Your task to perform on an android device: toggle location history Image 0: 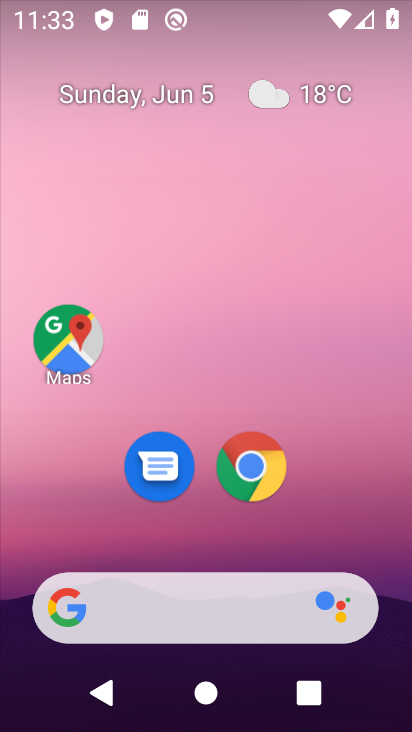
Step 0: drag from (348, 506) to (246, 0)
Your task to perform on an android device: toggle location history Image 1: 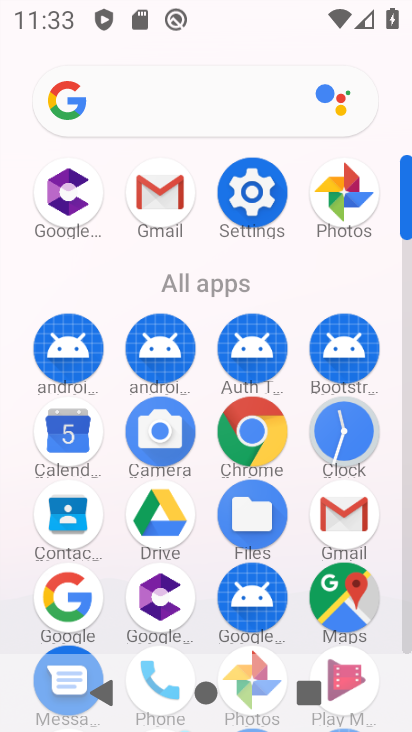
Step 1: click (254, 190)
Your task to perform on an android device: toggle location history Image 2: 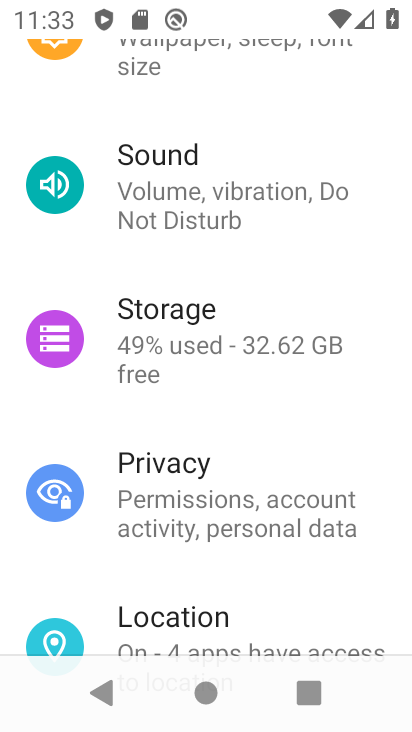
Step 2: drag from (259, 583) to (270, 261)
Your task to perform on an android device: toggle location history Image 3: 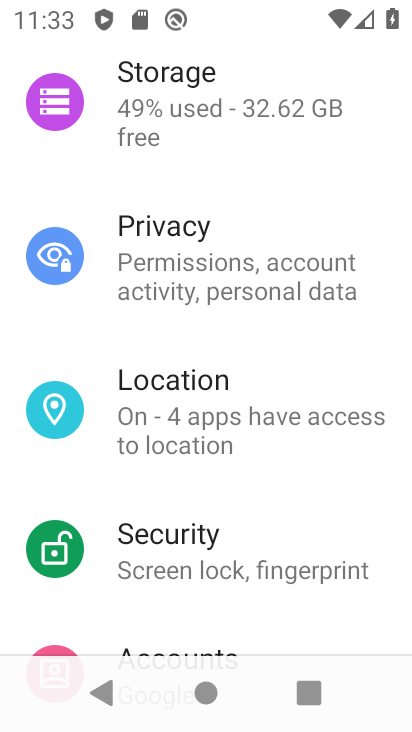
Step 3: click (208, 419)
Your task to perform on an android device: toggle location history Image 4: 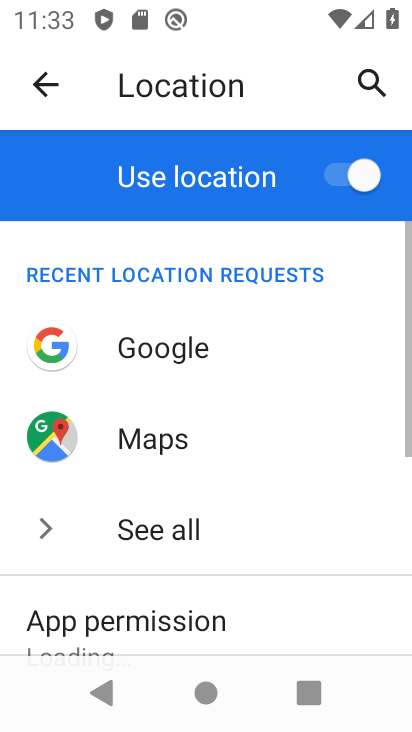
Step 4: drag from (264, 598) to (274, 162)
Your task to perform on an android device: toggle location history Image 5: 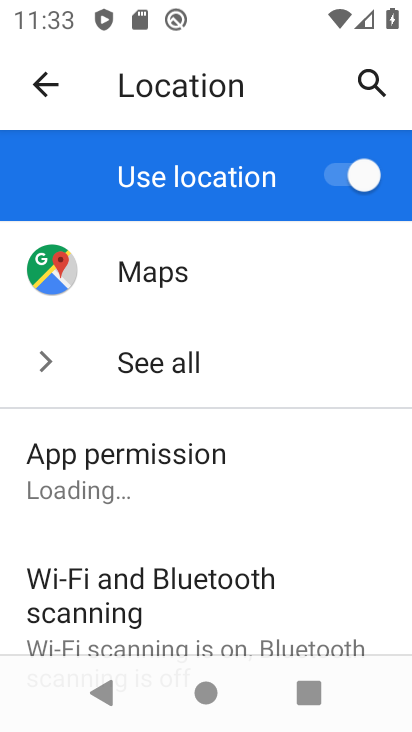
Step 5: drag from (147, 554) to (239, 183)
Your task to perform on an android device: toggle location history Image 6: 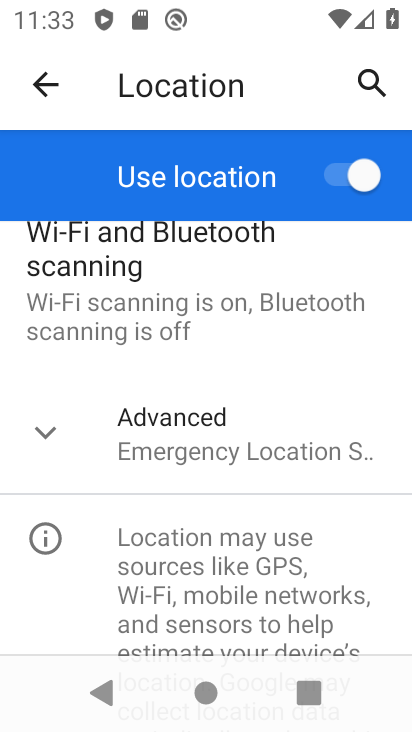
Step 6: click (113, 459)
Your task to perform on an android device: toggle location history Image 7: 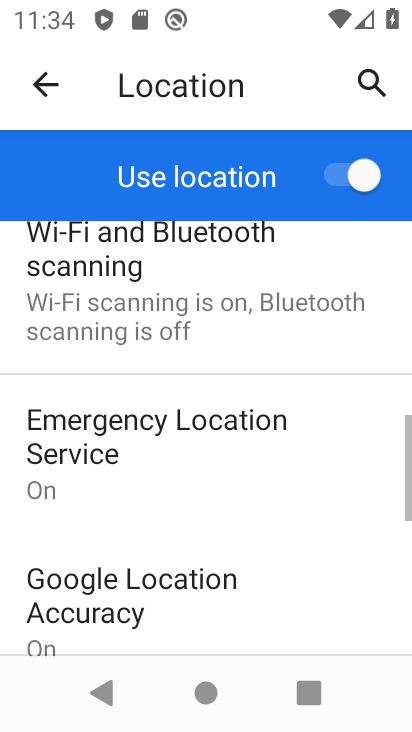
Step 7: drag from (244, 570) to (244, 213)
Your task to perform on an android device: toggle location history Image 8: 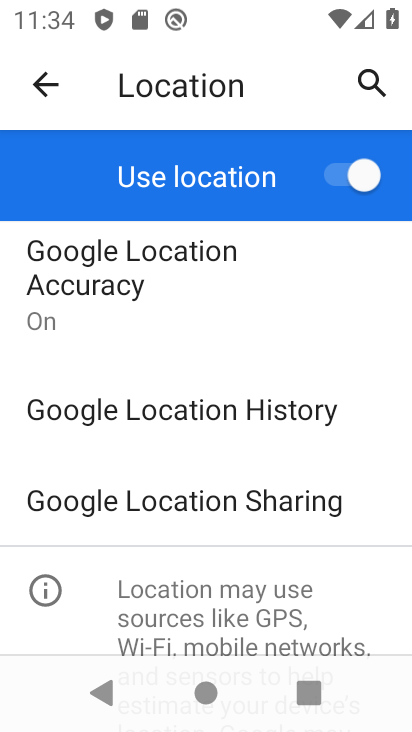
Step 8: click (159, 427)
Your task to perform on an android device: toggle location history Image 9: 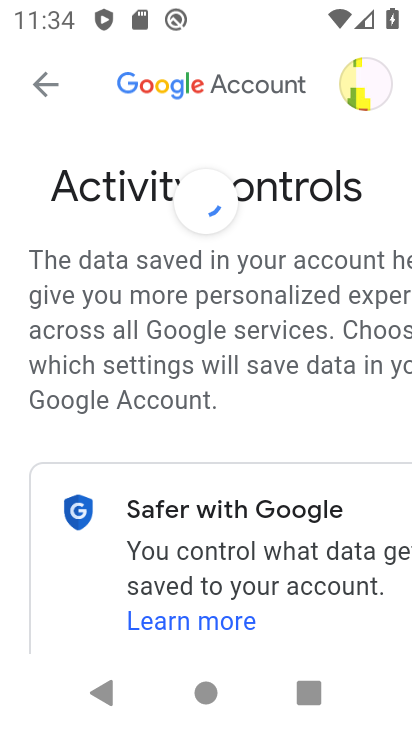
Step 9: drag from (269, 585) to (249, 220)
Your task to perform on an android device: toggle location history Image 10: 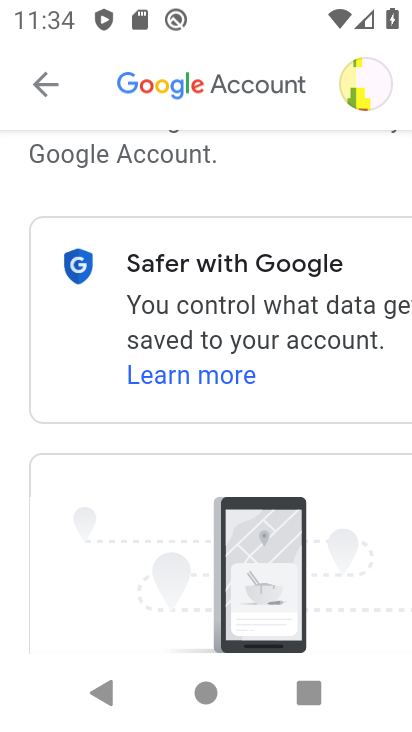
Step 10: drag from (162, 611) to (90, 217)
Your task to perform on an android device: toggle location history Image 11: 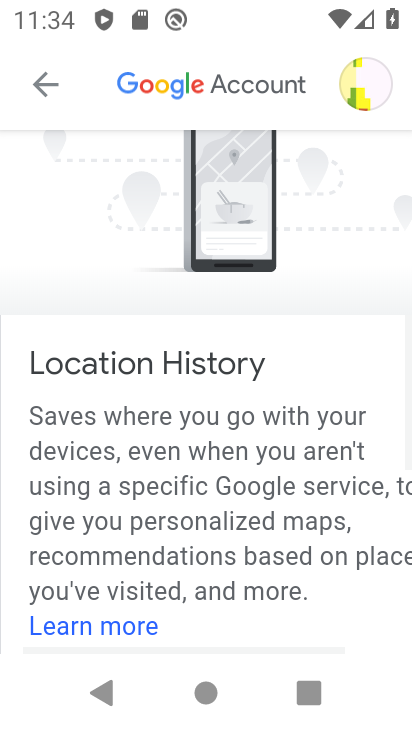
Step 11: drag from (230, 551) to (87, 227)
Your task to perform on an android device: toggle location history Image 12: 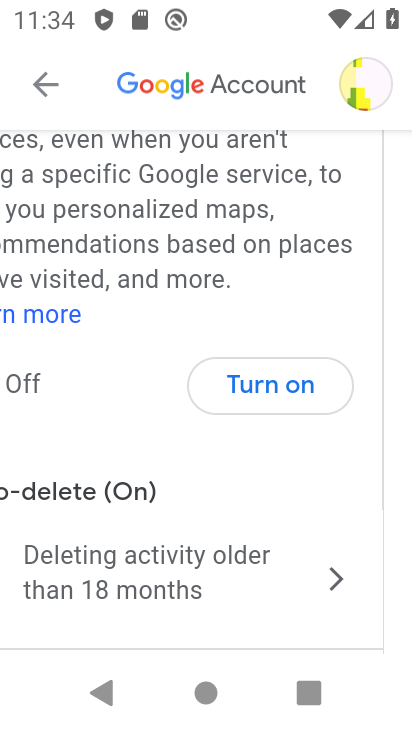
Step 12: drag from (261, 285) to (154, 249)
Your task to perform on an android device: toggle location history Image 13: 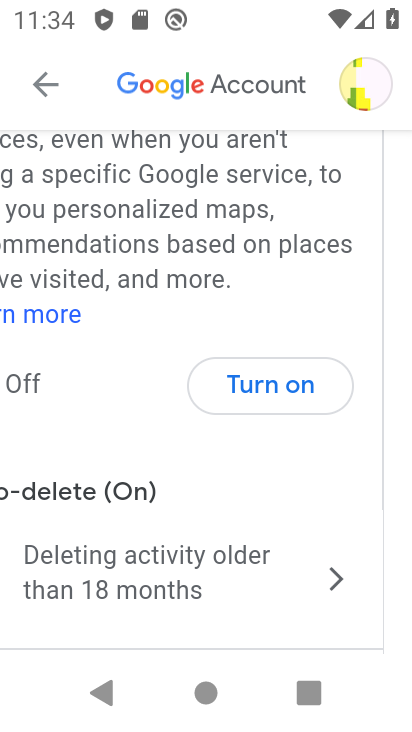
Step 13: click (263, 380)
Your task to perform on an android device: toggle location history Image 14: 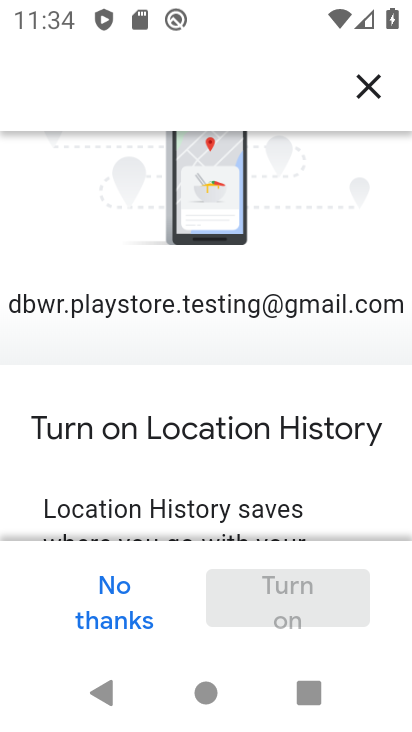
Step 14: drag from (266, 498) to (220, 128)
Your task to perform on an android device: toggle location history Image 15: 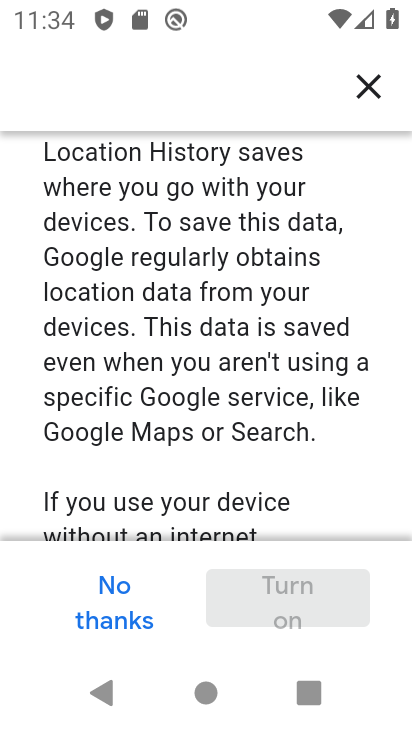
Step 15: drag from (183, 470) to (193, 112)
Your task to perform on an android device: toggle location history Image 16: 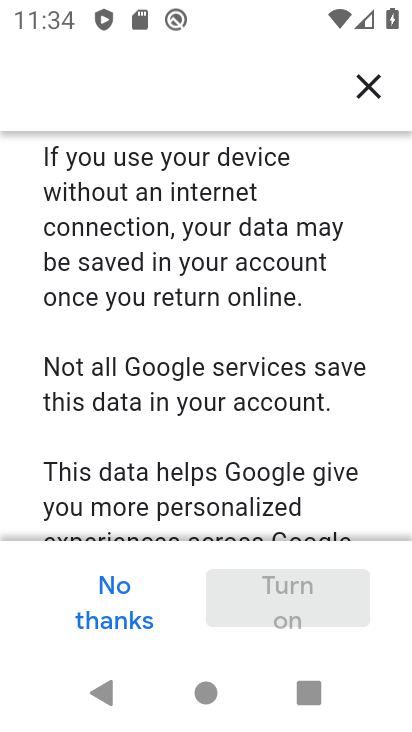
Step 16: drag from (214, 478) to (238, 146)
Your task to perform on an android device: toggle location history Image 17: 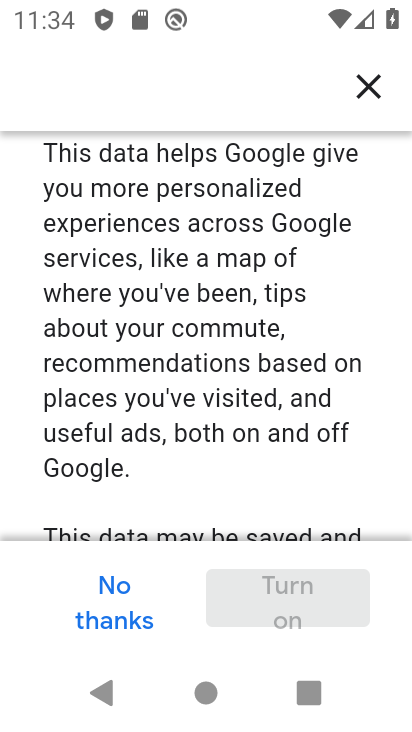
Step 17: drag from (238, 417) to (201, 130)
Your task to perform on an android device: toggle location history Image 18: 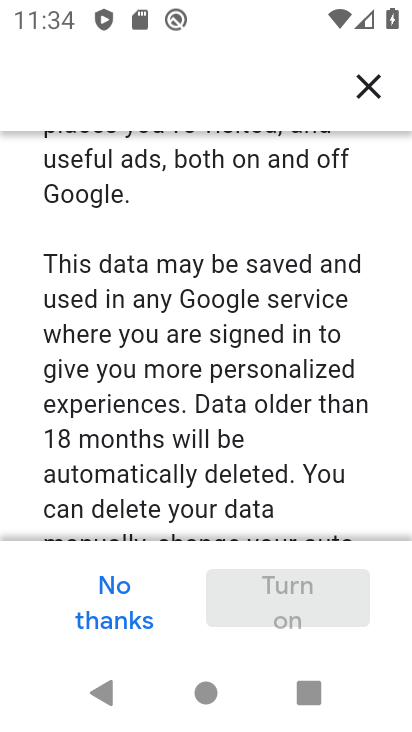
Step 18: drag from (199, 445) to (220, 122)
Your task to perform on an android device: toggle location history Image 19: 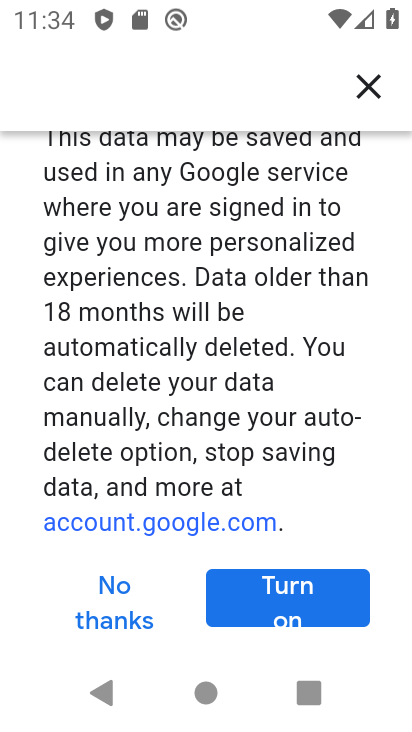
Step 19: click (312, 614)
Your task to perform on an android device: toggle location history Image 20: 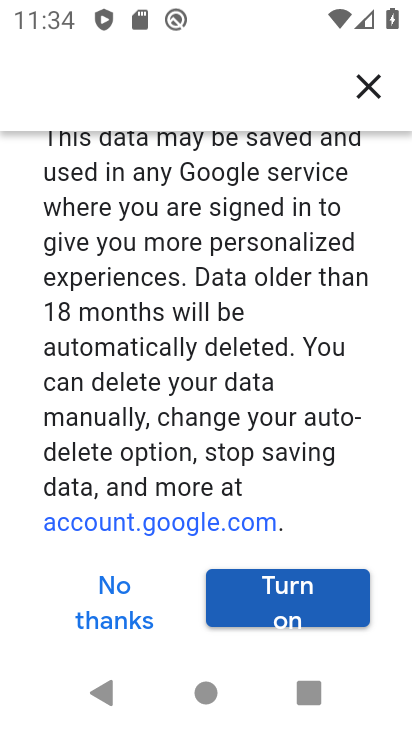
Step 20: click (303, 600)
Your task to perform on an android device: toggle location history Image 21: 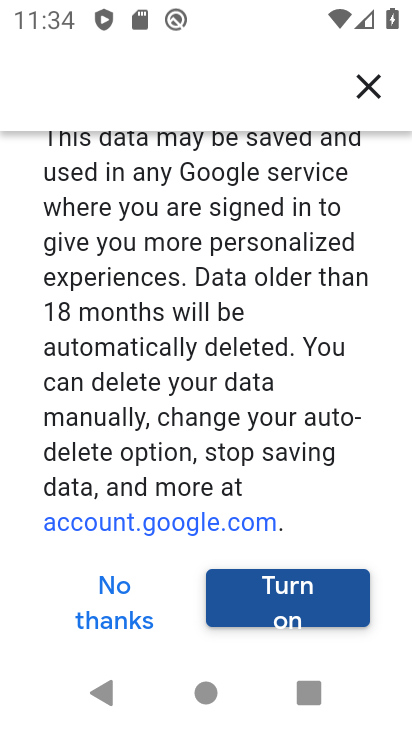
Step 21: click (303, 600)
Your task to perform on an android device: toggle location history Image 22: 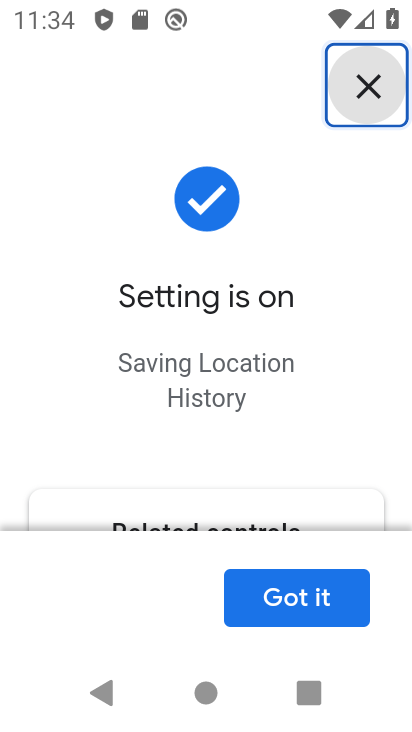
Step 22: task complete